Your task to perform on an android device: What's the weather? Image 0: 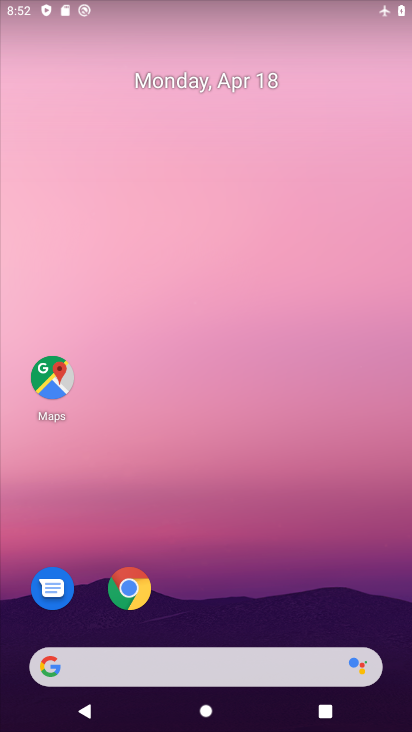
Step 0: click (330, 224)
Your task to perform on an android device: What's the weather? Image 1: 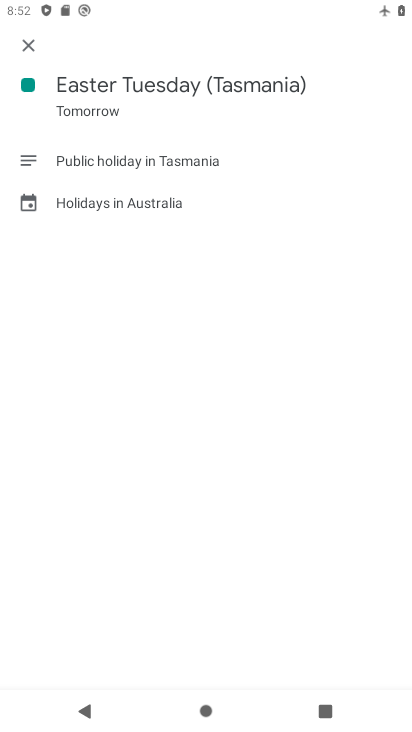
Step 1: press home button
Your task to perform on an android device: What's the weather? Image 2: 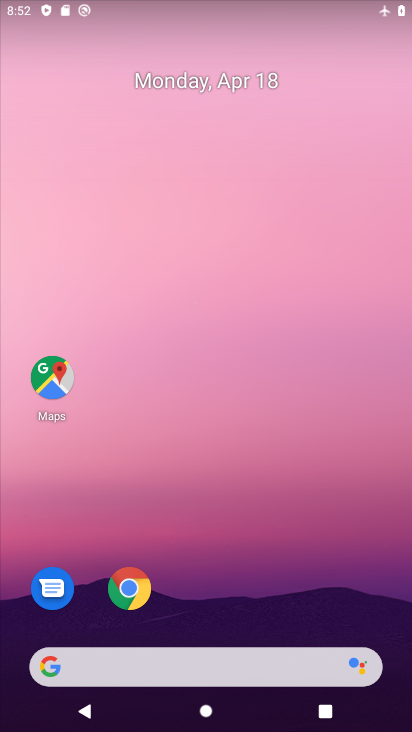
Step 2: drag from (246, 529) to (302, 193)
Your task to perform on an android device: What's the weather? Image 3: 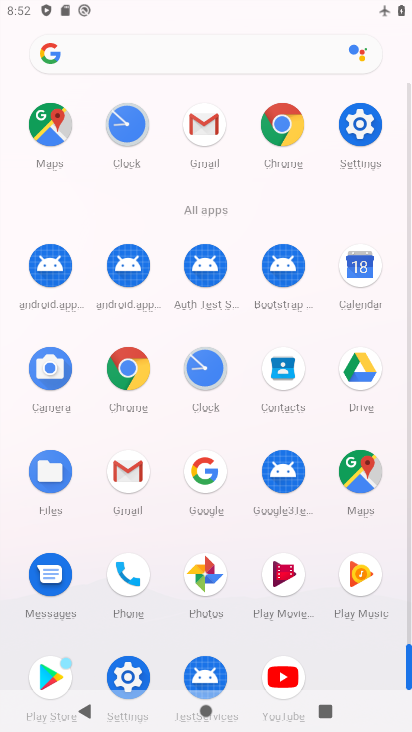
Step 3: click (129, 366)
Your task to perform on an android device: What's the weather? Image 4: 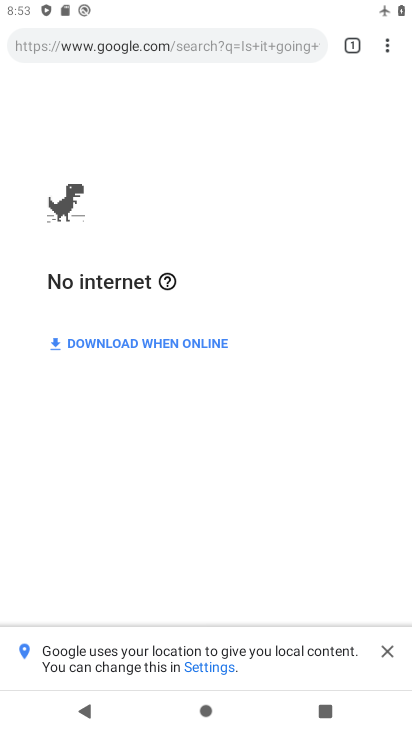
Step 4: task complete